Your task to perform on an android device: turn notification dots off Image 0: 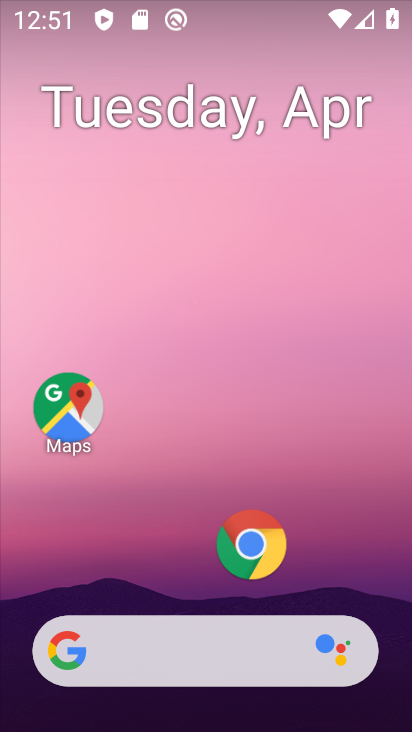
Step 0: drag from (151, 575) to (253, 220)
Your task to perform on an android device: turn notification dots off Image 1: 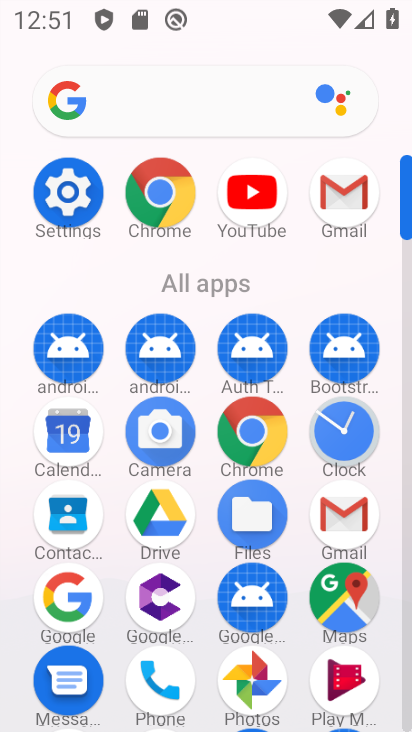
Step 1: click (72, 181)
Your task to perform on an android device: turn notification dots off Image 2: 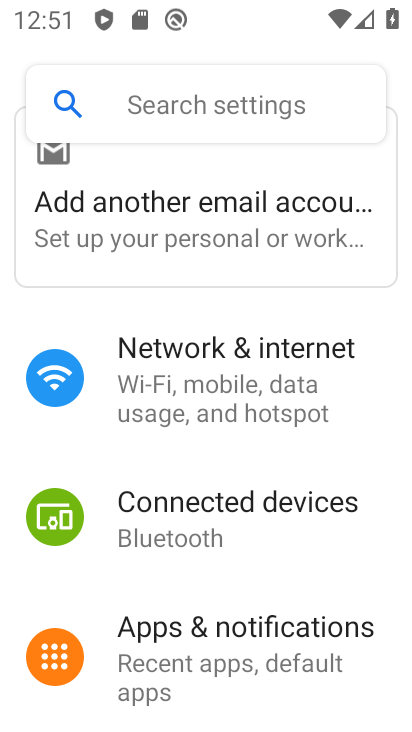
Step 2: click (186, 97)
Your task to perform on an android device: turn notification dots off Image 3: 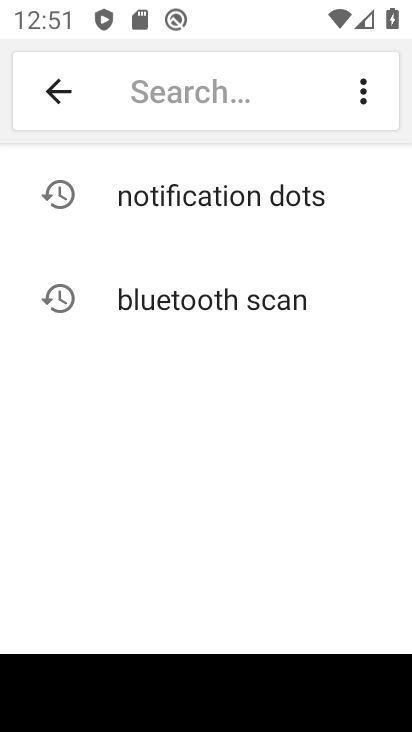
Step 3: click (258, 207)
Your task to perform on an android device: turn notification dots off Image 4: 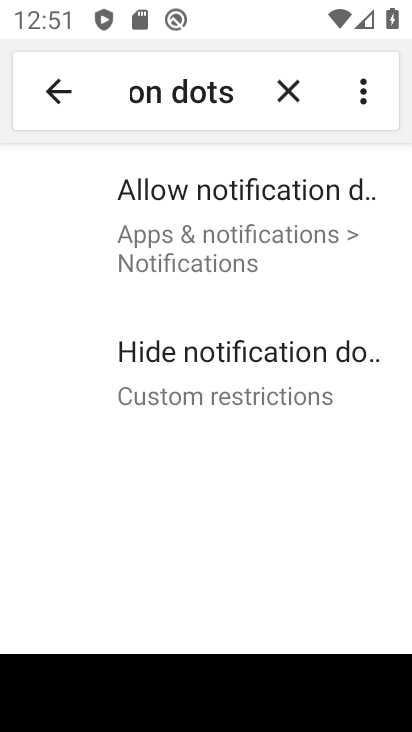
Step 4: click (258, 207)
Your task to perform on an android device: turn notification dots off Image 5: 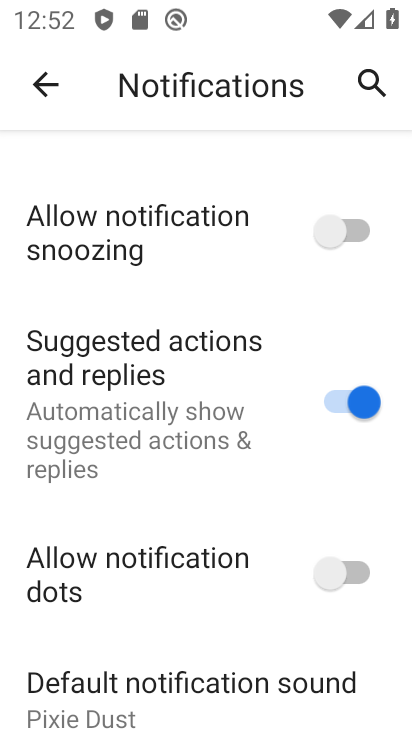
Step 5: task complete